Your task to perform on an android device: Open privacy settings Image 0: 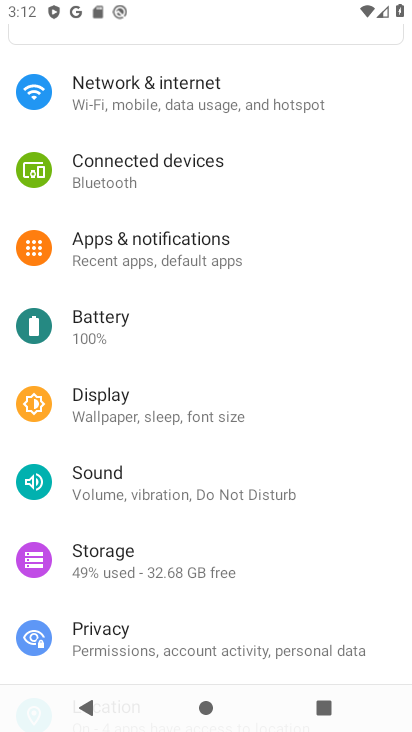
Step 0: drag from (344, 486) to (339, 246)
Your task to perform on an android device: Open privacy settings Image 1: 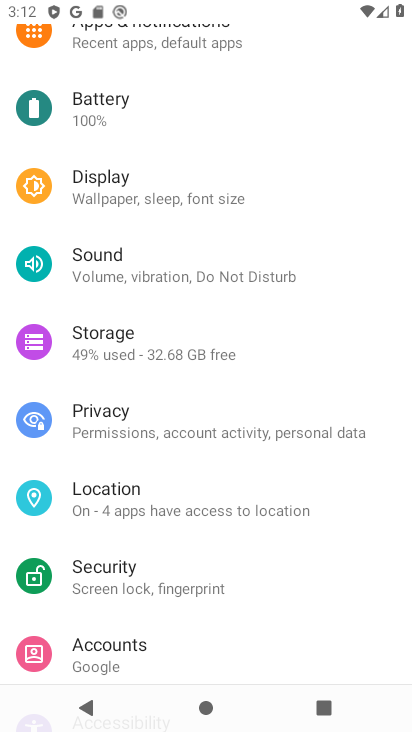
Step 1: drag from (346, 496) to (342, 263)
Your task to perform on an android device: Open privacy settings Image 2: 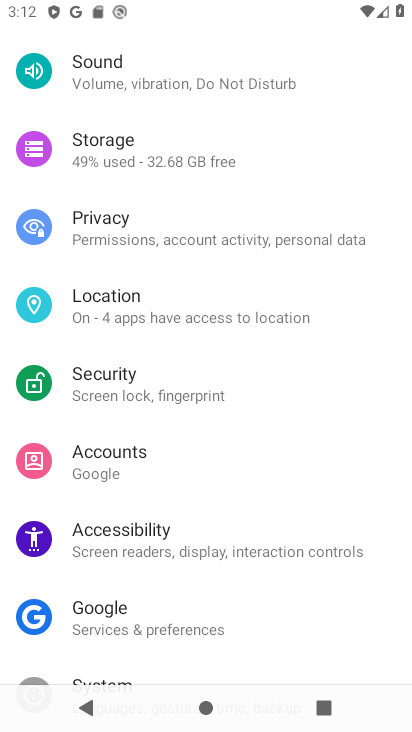
Step 2: drag from (353, 220) to (358, 357)
Your task to perform on an android device: Open privacy settings Image 3: 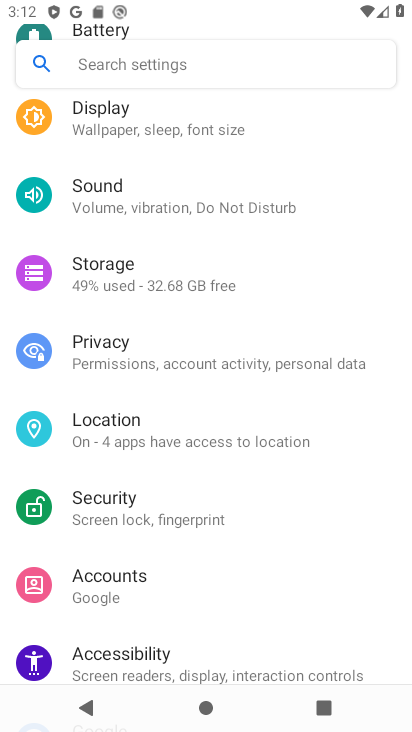
Step 3: drag from (361, 231) to (346, 364)
Your task to perform on an android device: Open privacy settings Image 4: 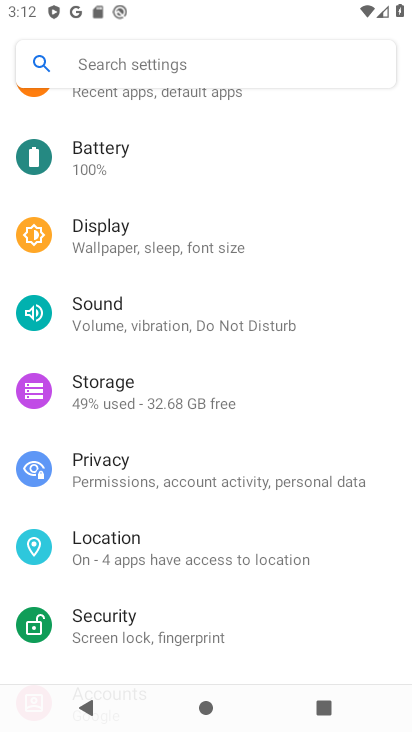
Step 4: drag from (333, 218) to (311, 351)
Your task to perform on an android device: Open privacy settings Image 5: 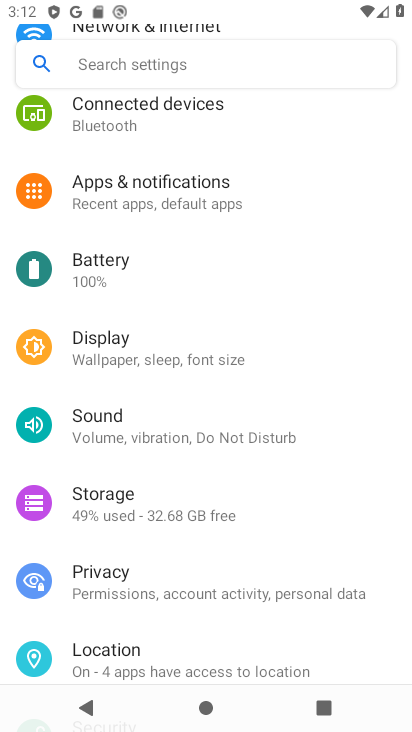
Step 5: drag from (337, 213) to (300, 354)
Your task to perform on an android device: Open privacy settings Image 6: 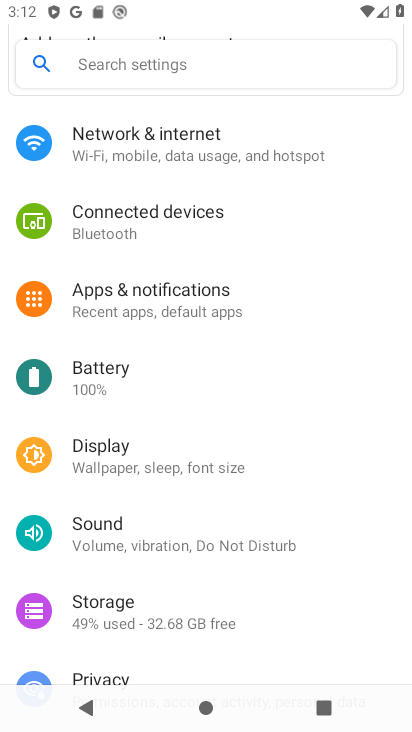
Step 6: drag from (313, 227) to (294, 396)
Your task to perform on an android device: Open privacy settings Image 7: 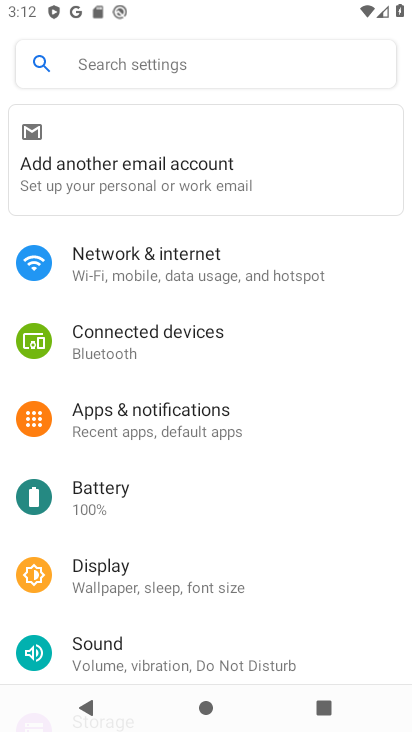
Step 7: drag from (367, 517) to (363, 389)
Your task to perform on an android device: Open privacy settings Image 8: 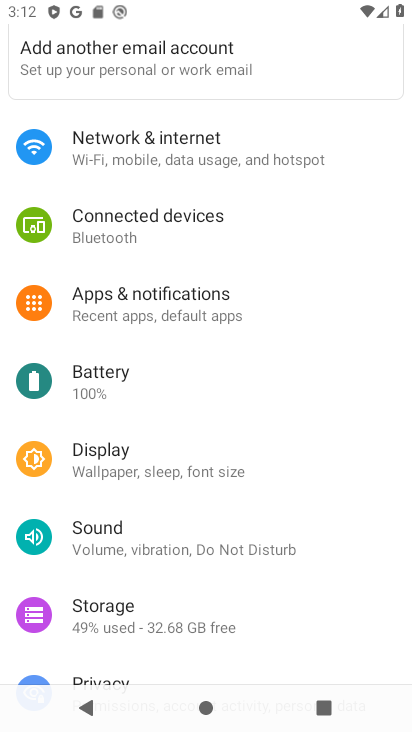
Step 8: drag from (365, 510) to (364, 368)
Your task to perform on an android device: Open privacy settings Image 9: 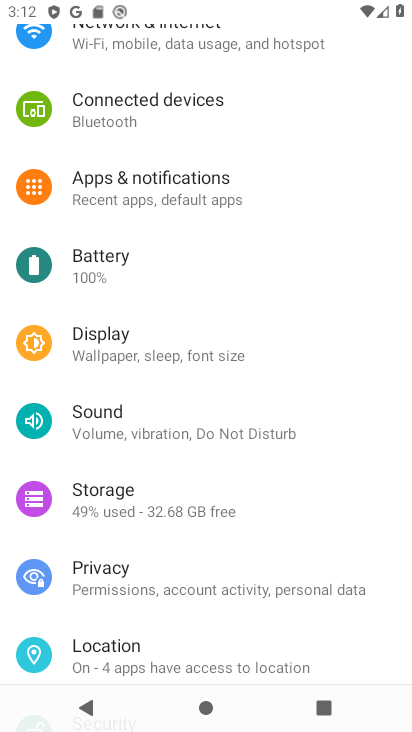
Step 9: drag from (342, 507) to (334, 360)
Your task to perform on an android device: Open privacy settings Image 10: 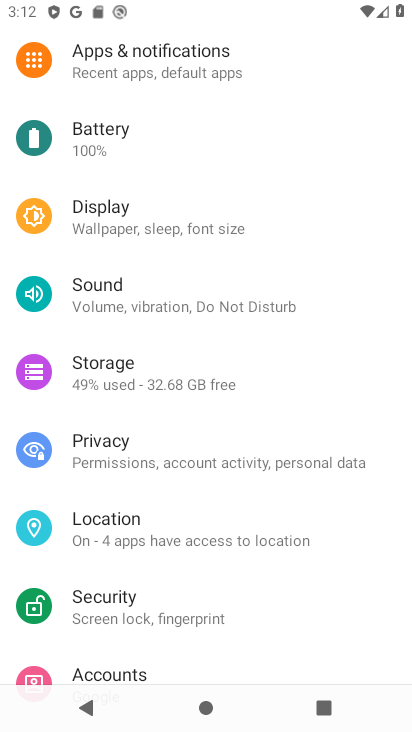
Step 10: drag from (329, 525) to (330, 389)
Your task to perform on an android device: Open privacy settings Image 11: 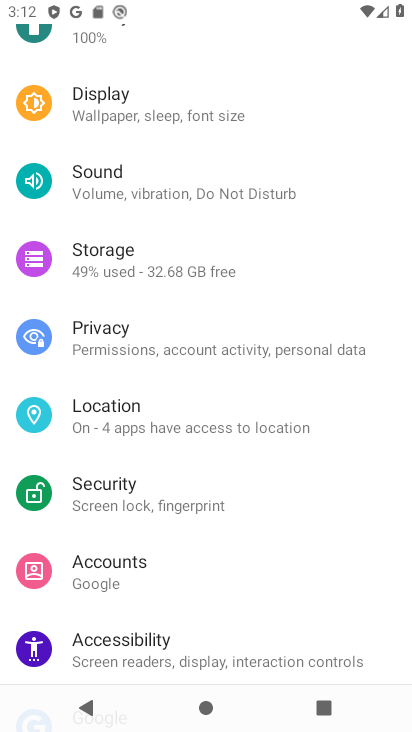
Step 11: drag from (332, 552) to (335, 395)
Your task to perform on an android device: Open privacy settings Image 12: 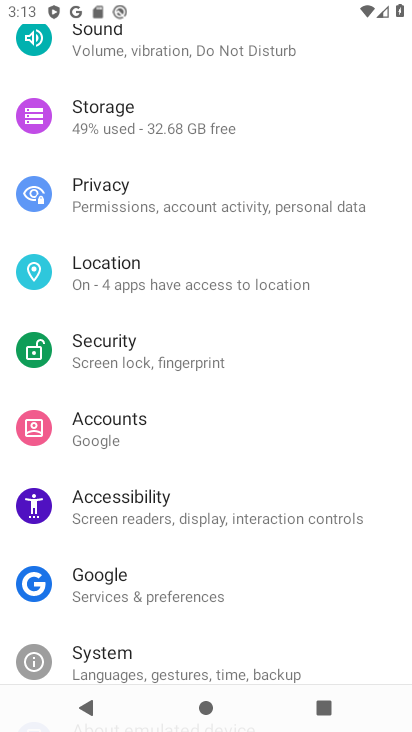
Step 12: click (310, 221)
Your task to perform on an android device: Open privacy settings Image 13: 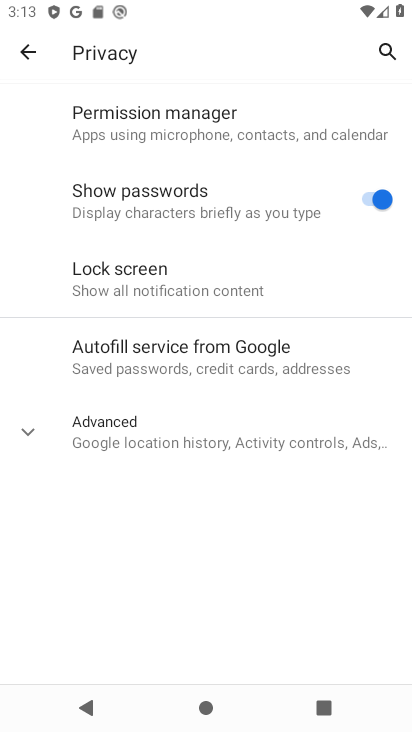
Step 13: task complete